Your task to perform on an android device: Go to sound settings Image 0: 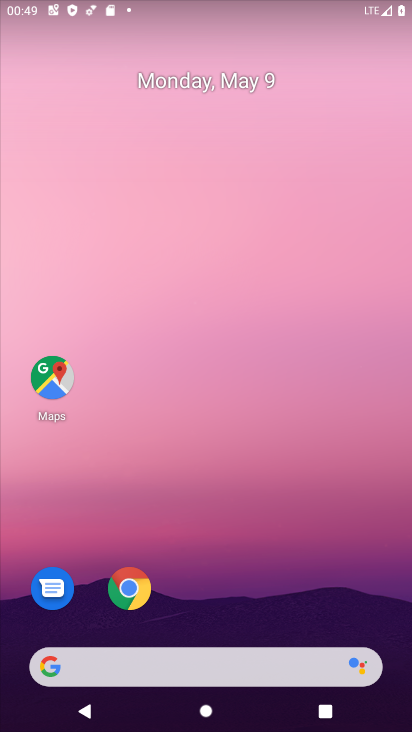
Step 0: drag from (262, 579) to (89, 1)
Your task to perform on an android device: Go to sound settings Image 1: 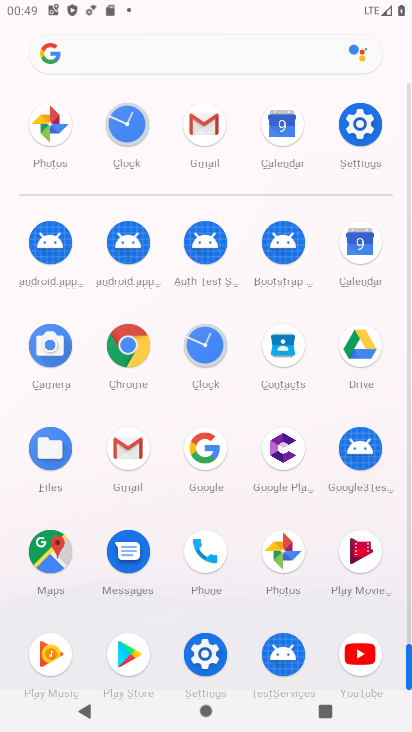
Step 1: click (356, 119)
Your task to perform on an android device: Go to sound settings Image 2: 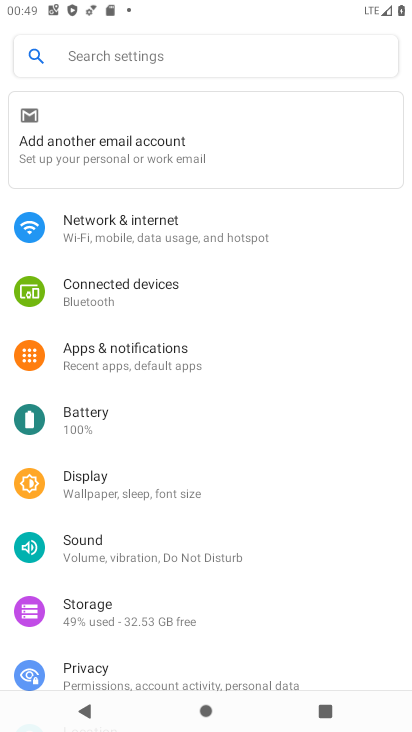
Step 2: click (83, 542)
Your task to perform on an android device: Go to sound settings Image 3: 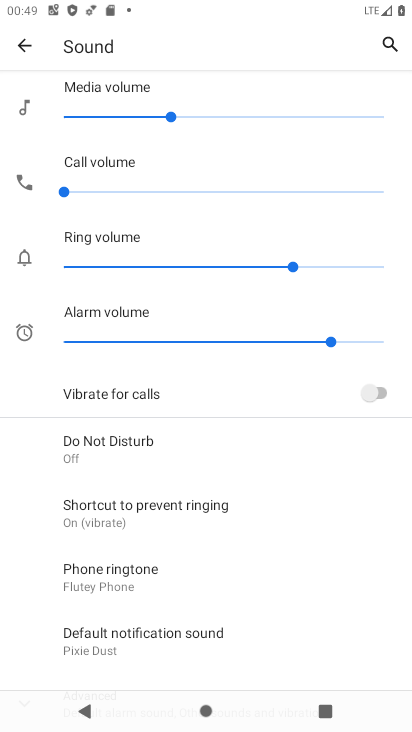
Step 3: task complete